Your task to perform on an android device: see tabs open on other devices in the chrome app Image 0: 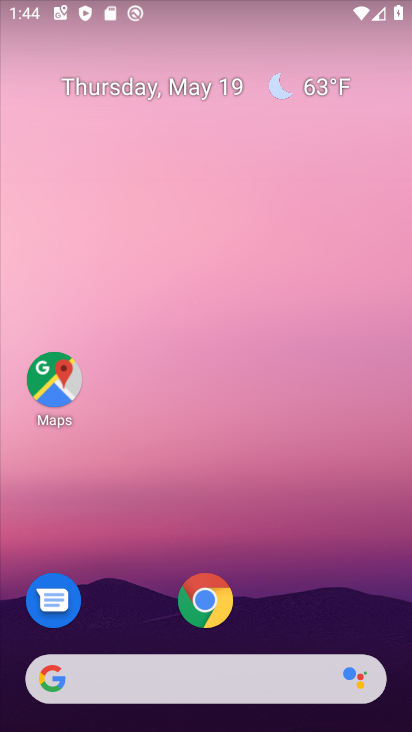
Step 0: click (200, 594)
Your task to perform on an android device: see tabs open on other devices in the chrome app Image 1: 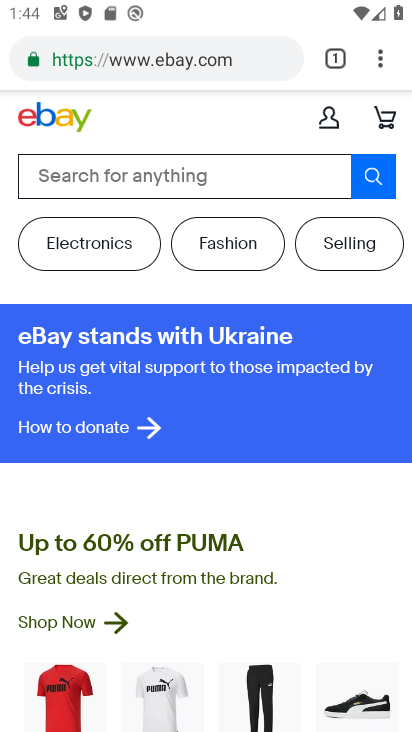
Step 1: click (386, 50)
Your task to perform on an android device: see tabs open on other devices in the chrome app Image 2: 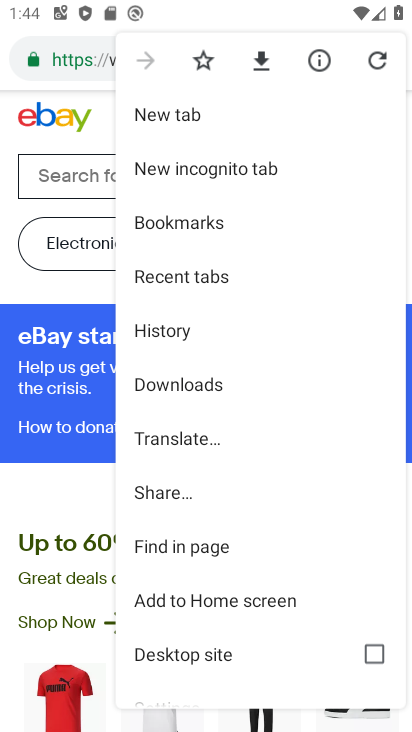
Step 2: click (221, 283)
Your task to perform on an android device: see tabs open on other devices in the chrome app Image 3: 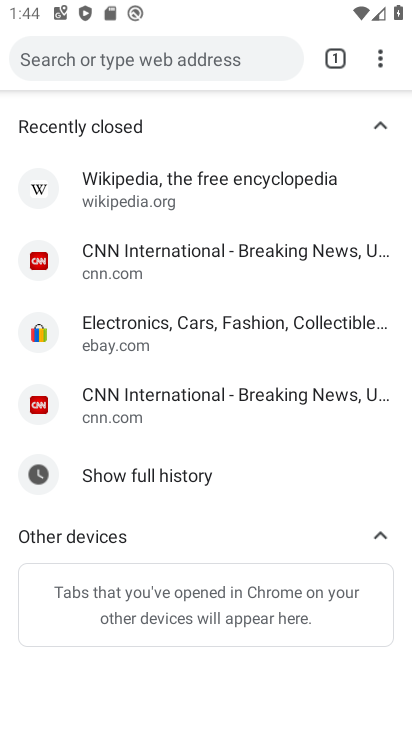
Step 3: task complete